Your task to perform on an android device: open a bookmark in the chrome app Image 0: 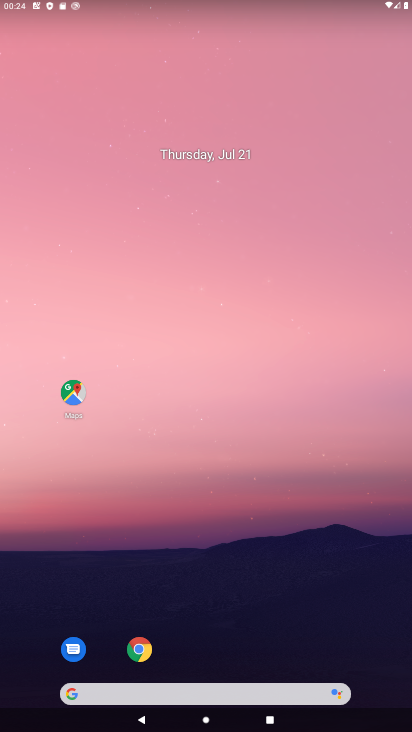
Step 0: click (141, 645)
Your task to perform on an android device: open a bookmark in the chrome app Image 1: 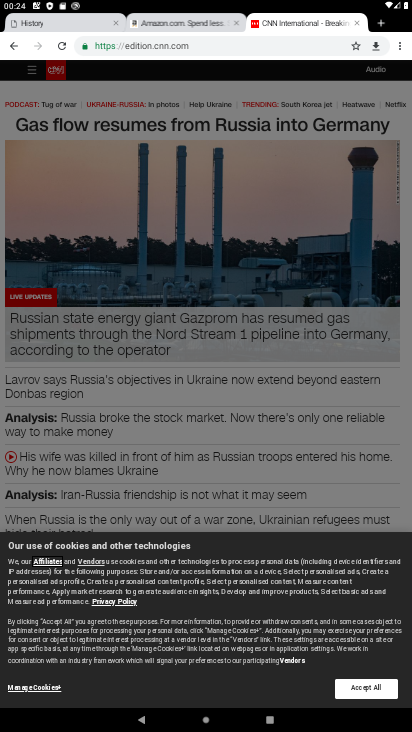
Step 1: click (400, 47)
Your task to perform on an android device: open a bookmark in the chrome app Image 2: 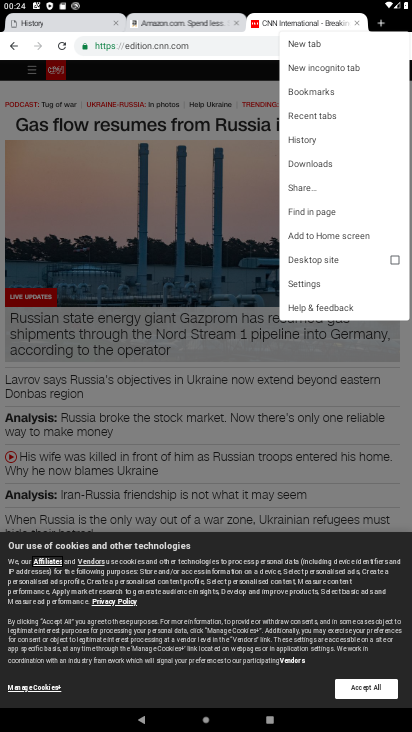
Step 2: click (313, 91)
Your task to perform on an android device: open a bookmark in the chrome app Image 3: 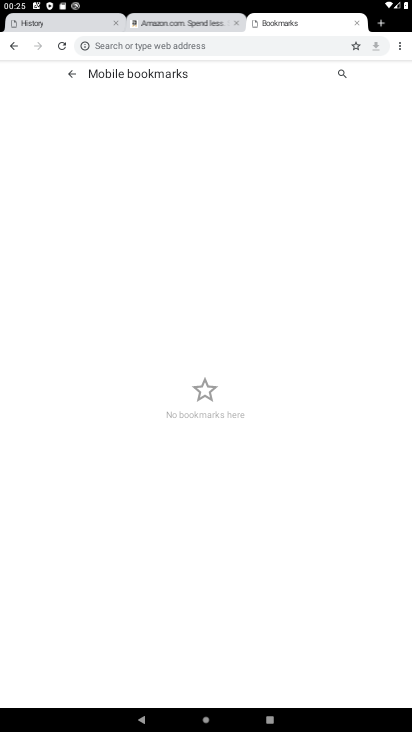
Step 3: task complete